Your task to perform on an android device: See recent photos Image 0: 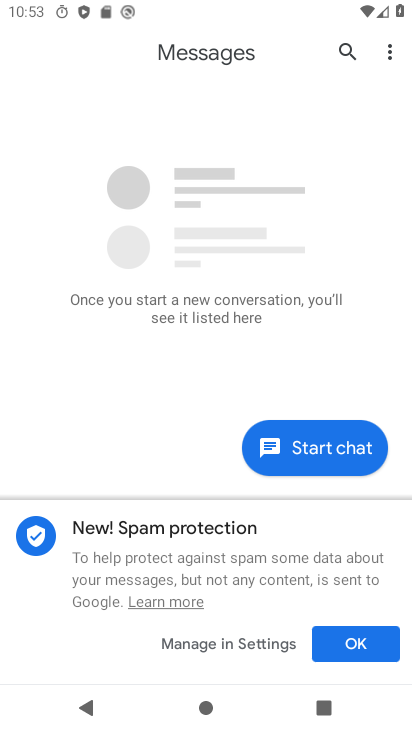
Step 0: press home button
Your task to perform on an android device: See recent photos Image 1: 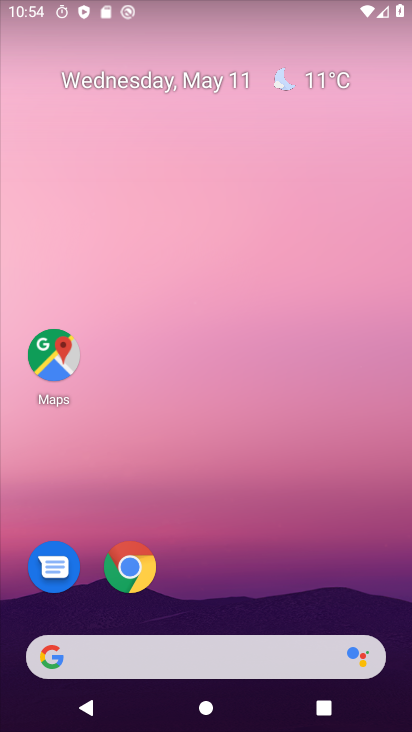
Step 1: drag from (307, 462) to (261, 18)
Your task to perform on an android device: See recent photos Image 2: 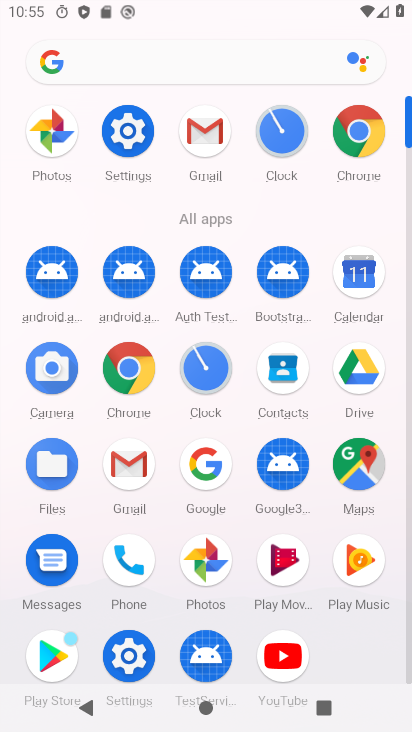
Step 2: click (63, 140)
Your task to perform on an android device: See recent photos Image 3: 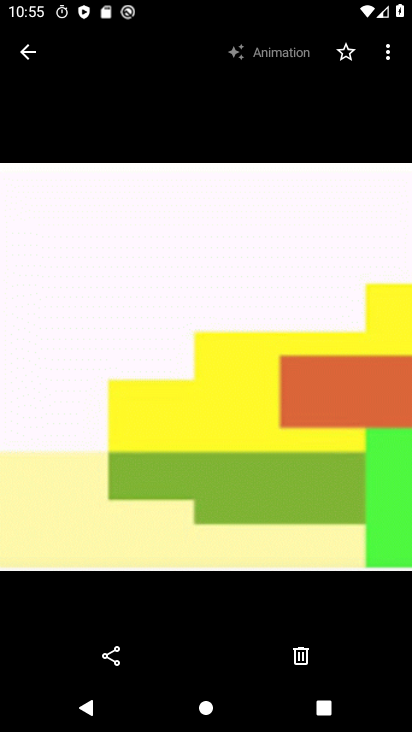
Step 3: click (51, 44)
Your task to perform on an android device: See recent photos Image 4: 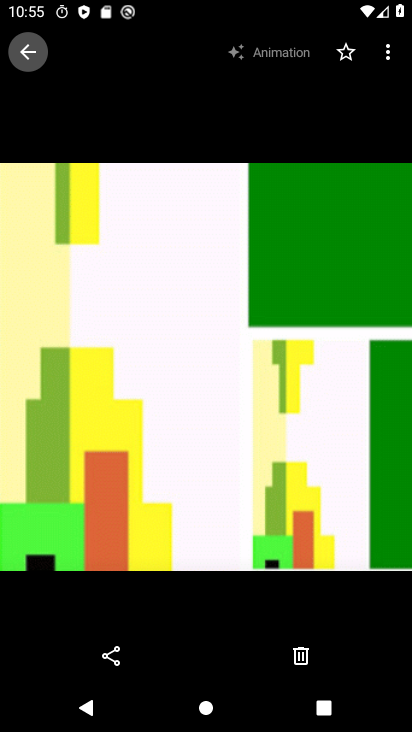
Step 4: click (40, 57)
Your task to perform on an android device: See recent photos Image 5: 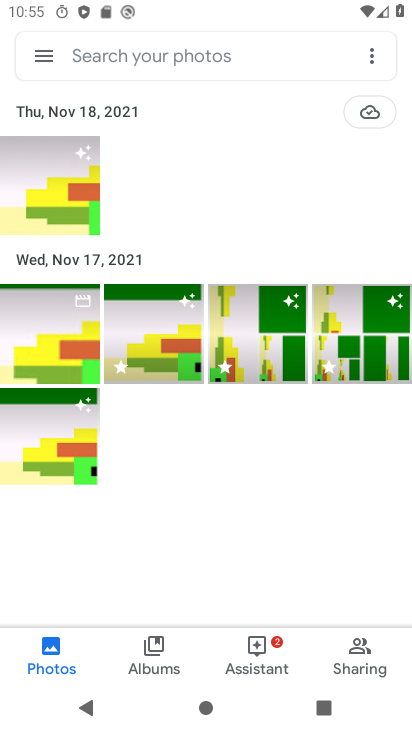
Step 5: click (52, 194)
Your task to perform on an android device: See recent photos Image 6: 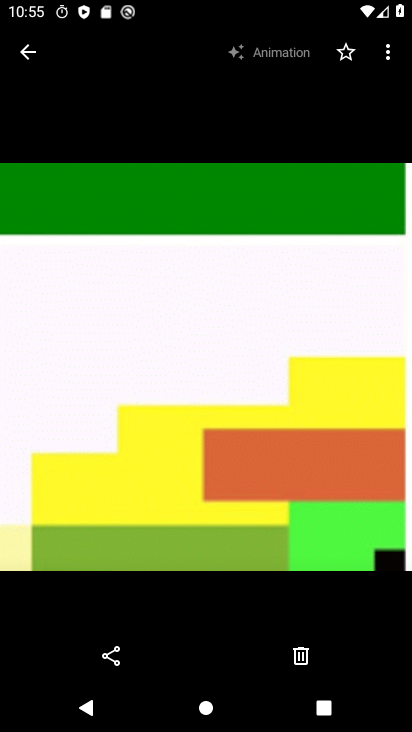
Step 6: task complete